Your task to perform on an android device: Open Yahoo.com Image 0: 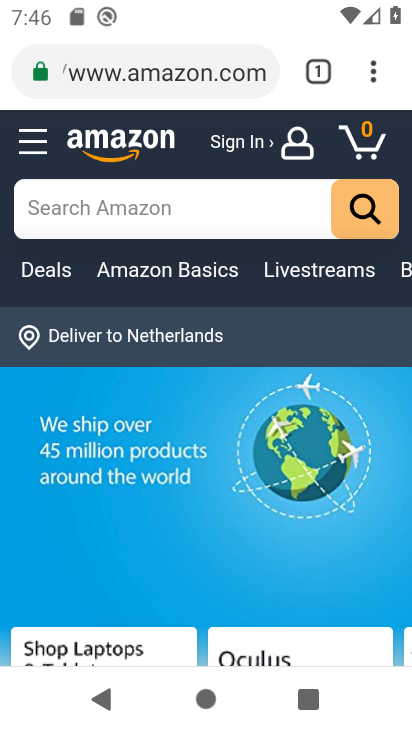
Step 0: click (162, 68)
Your task to perform on an android device: Open Yahoo.com Image 1: 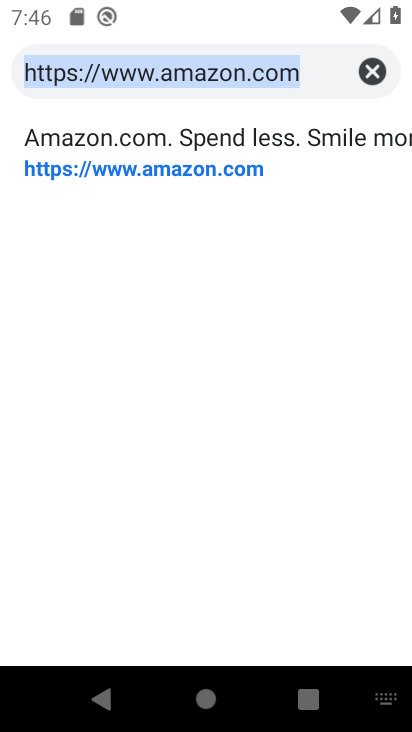
Step 1: click (380, 58)
Your task to perform on an android device: Open Yahoo.com Image 2: 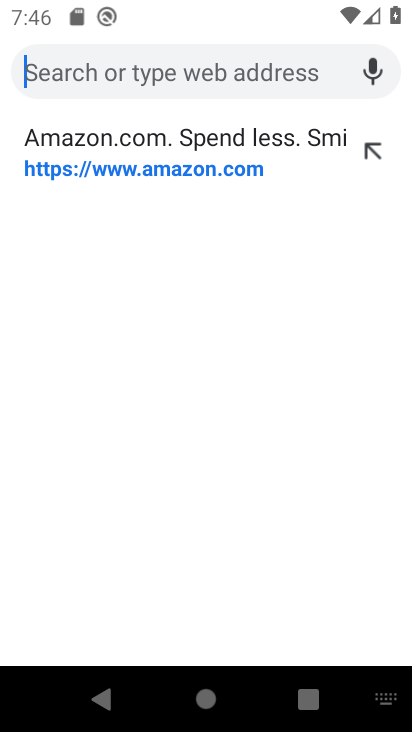
Step 2: type "yahoo.com"
Your task to perform on an android device: Open Yahoo.com Image 3: 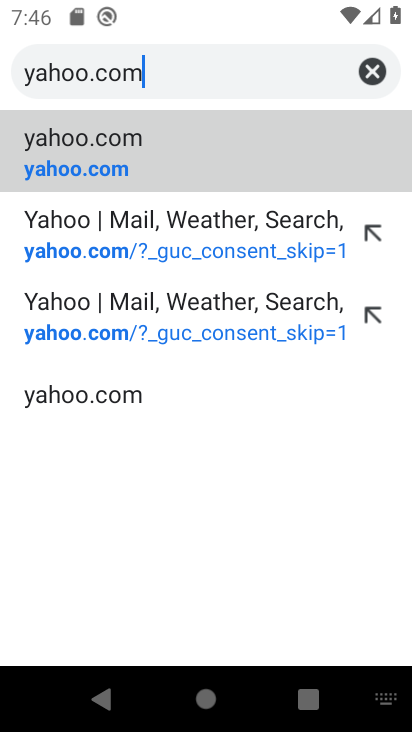
Step 3: click (54, 135)
Your task to perform on an android device: Open Yahoo.com Image 4: 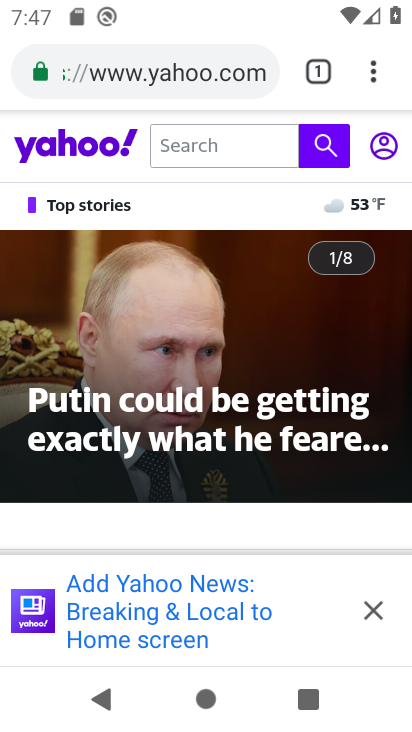
Step 4: task complete